Your task to perform on an android device: Go to wifi settings Image 0: 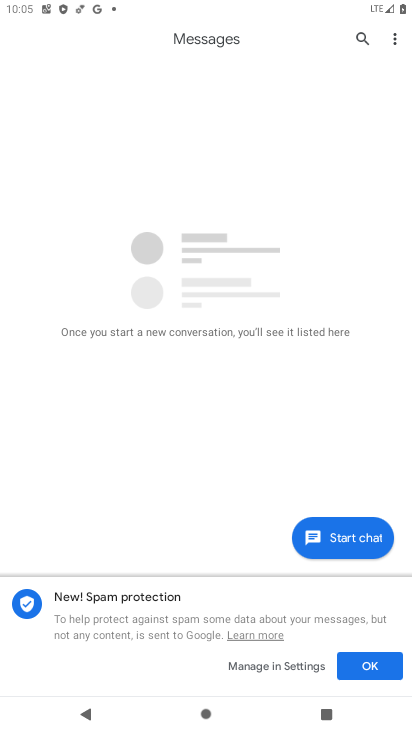
Step 0: press home button
Your task to perform on an android device: Go to wifi settings Image 1: 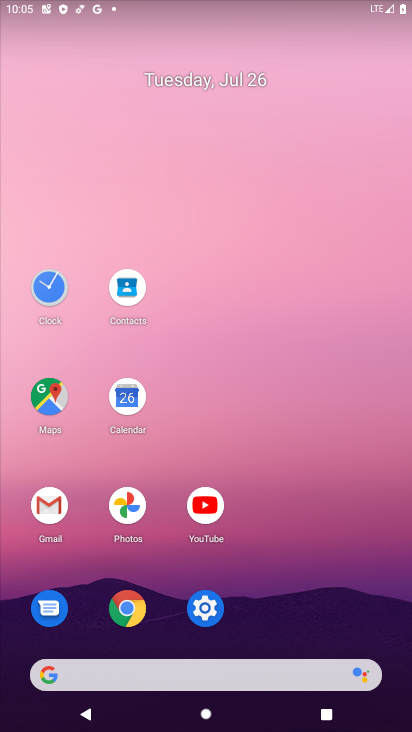
Step 1: click (203, 608)
Your task to perform on an android device: Go to wifi settings Image 2: 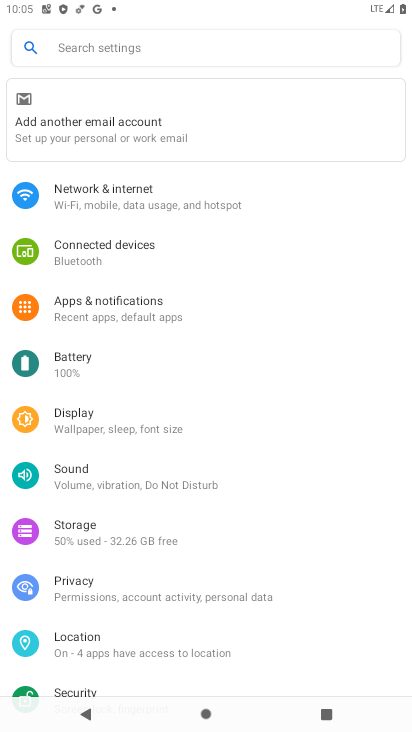
Step 2: click (115, 180)
Your task to perform on an android device: Go to wifi settings Image 3: 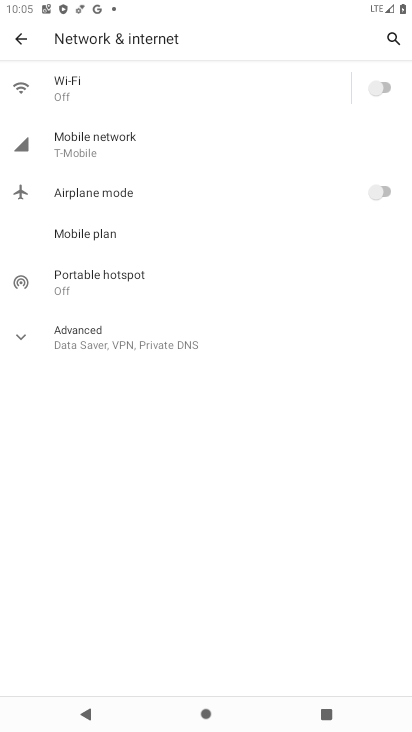
Step 3: click (96, 80)
Your task to perform on an android device: Go to wifi settings Image 4: 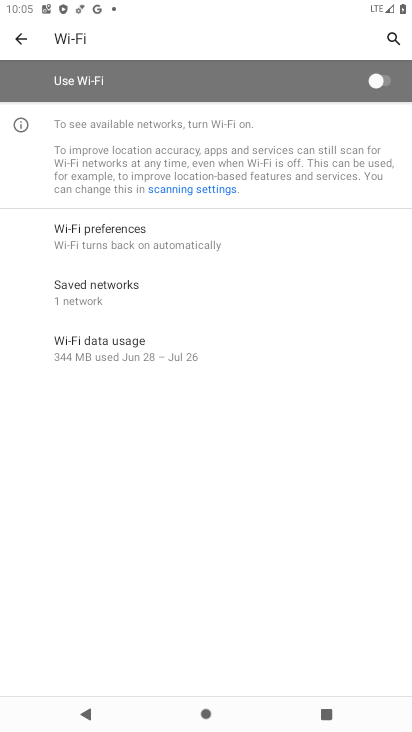
Step 4: task complete